Your task to perform on an android device: toggle wifi Image 0: 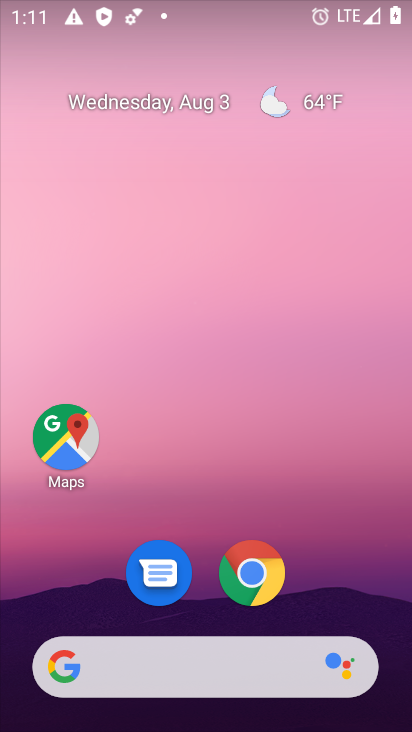
Step 0: drag from (225, 302) to (238, 129)
Your task to perform on an android device: toggle wifi Image 1: 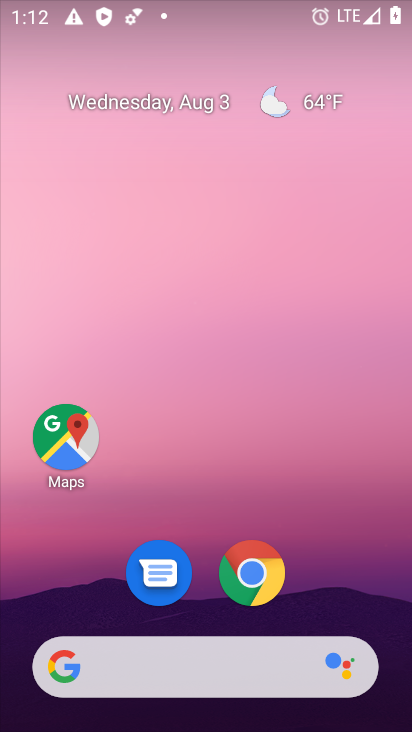
Step 1: drag from (157, 651) to (204, 61)
Your task to perform on an android device: toggle wifi Image 2: 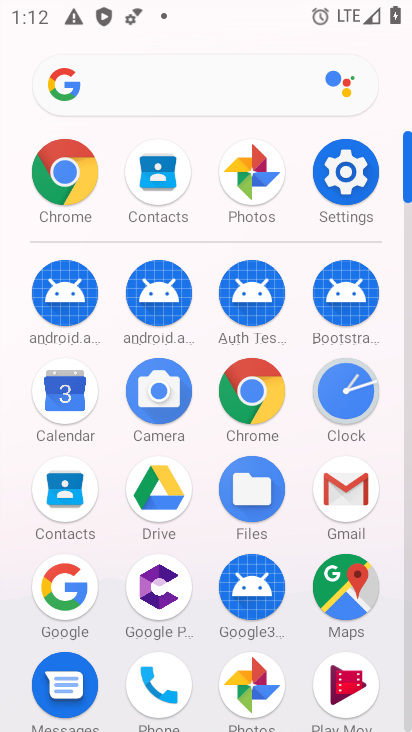
Step 2: click (336, 187)
Your task to perform on an android device: toggle wifi Image 3: 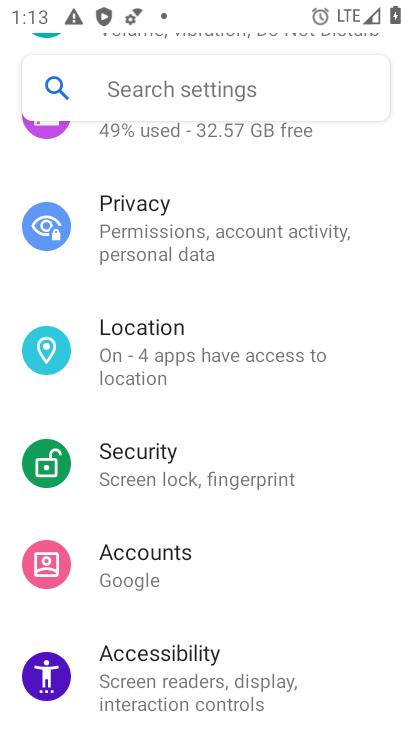
Step 3: drag from (190, 262) to (103, 686)
Your task to perform on an android device: toggle wifi Image 4: 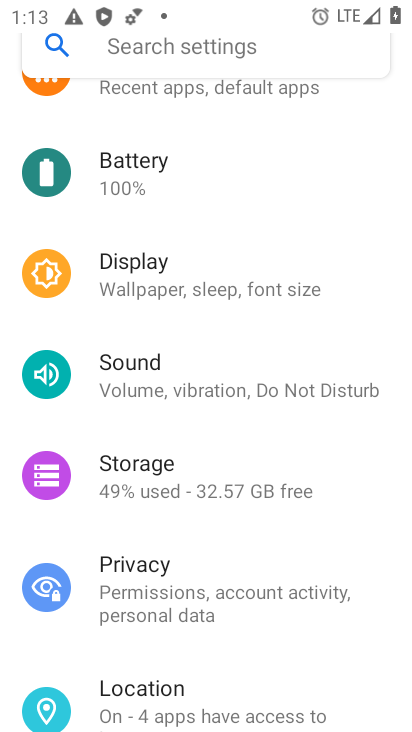
Step 4: drag from (166, 402) to (184, 725)
Your task to perform on an android device: toggle wifi Image 5: 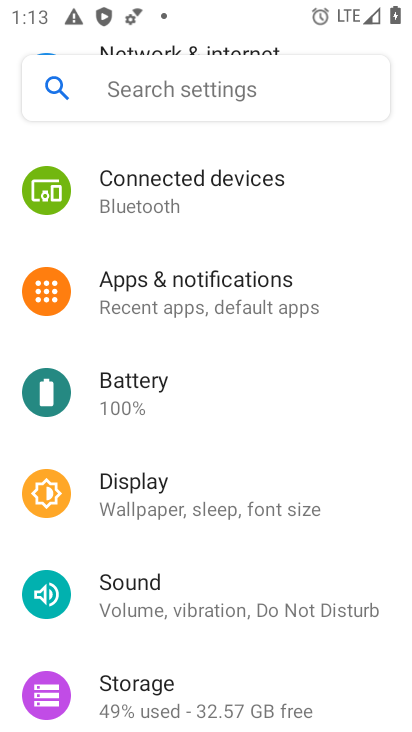
Step 5: drag from (214, 293) to (172, 723)
Your task to perform on an android device: toggle wifi Image 6: 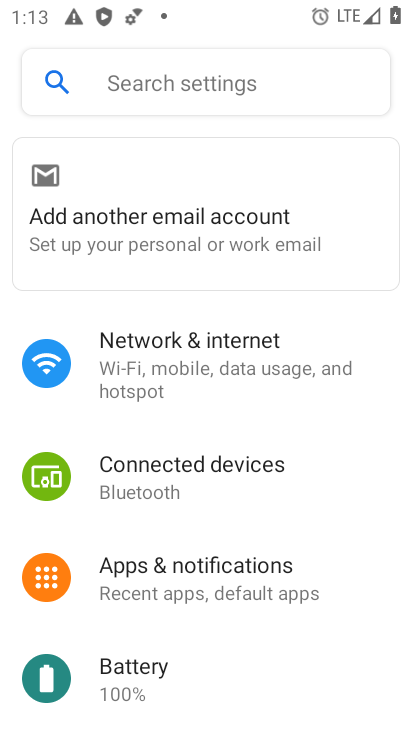
Step 6: click (223, 367)
Your task to perform on an android device: toggle wifi Image 7: 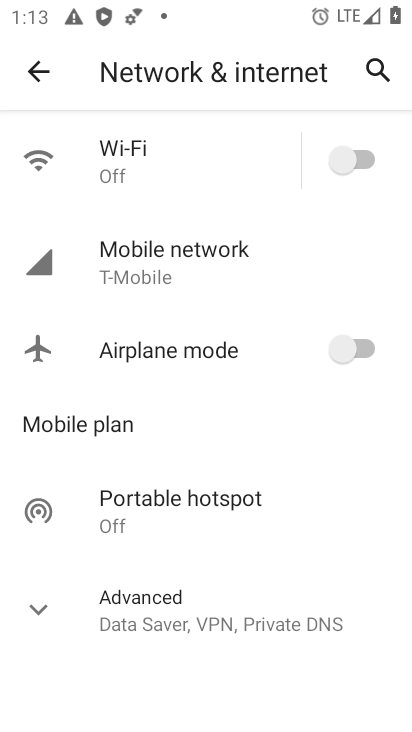
Step 7: task complete